Your task to perform on an android device: Go to Yahoo.com Image 0: 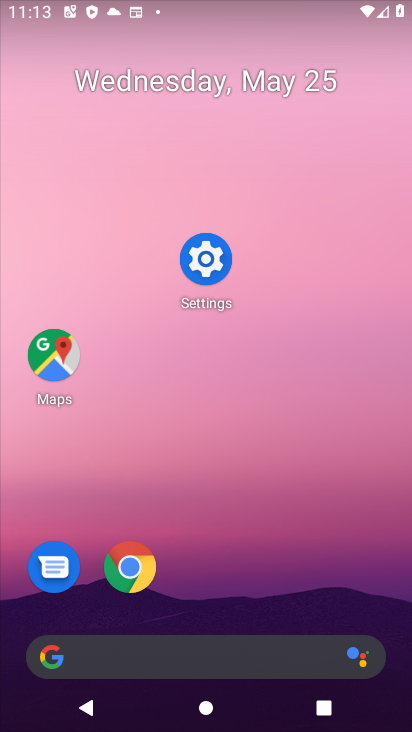
Step 0: drag from (316, 566) to (141, 6)
Your task to perform on an android device: Go to Yahoo.com Image 1: 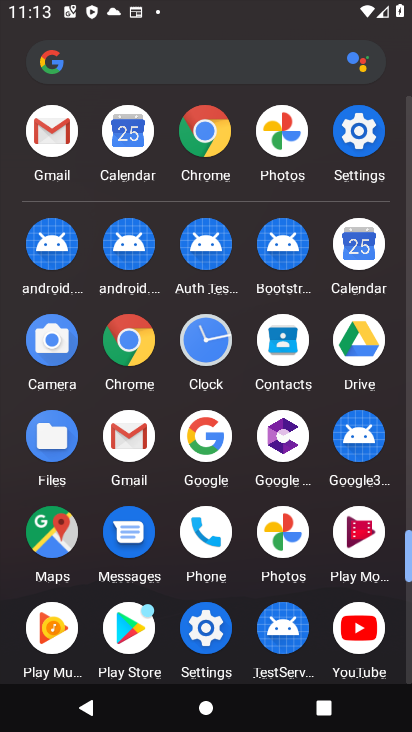
Step 1: click (196, 165)
Your task to perform on an android device: Go to Yahoo.com Image 2: 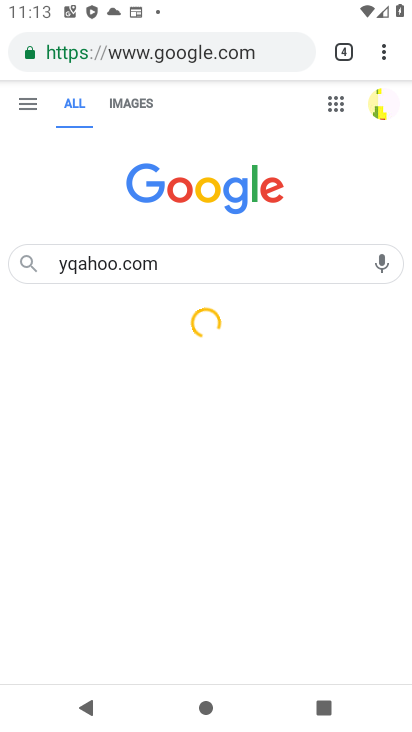
Step 2: click (244, 255)
Your task to perform on an android device: Go to Yahoo.com Image 3: 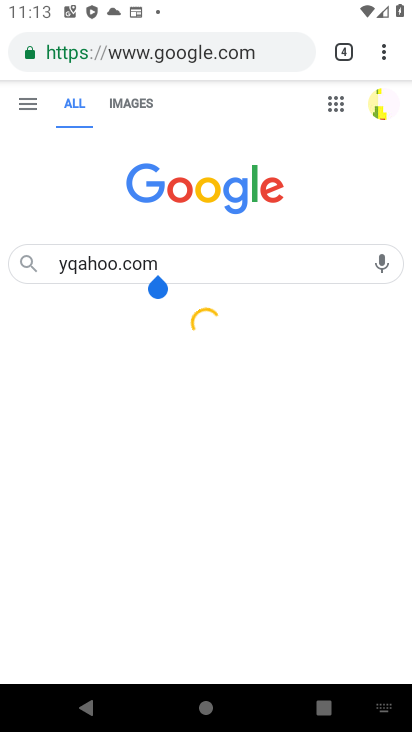
Step 3: task complete